Your task to perform on an android device: install app "The Home Depot" Image 0: 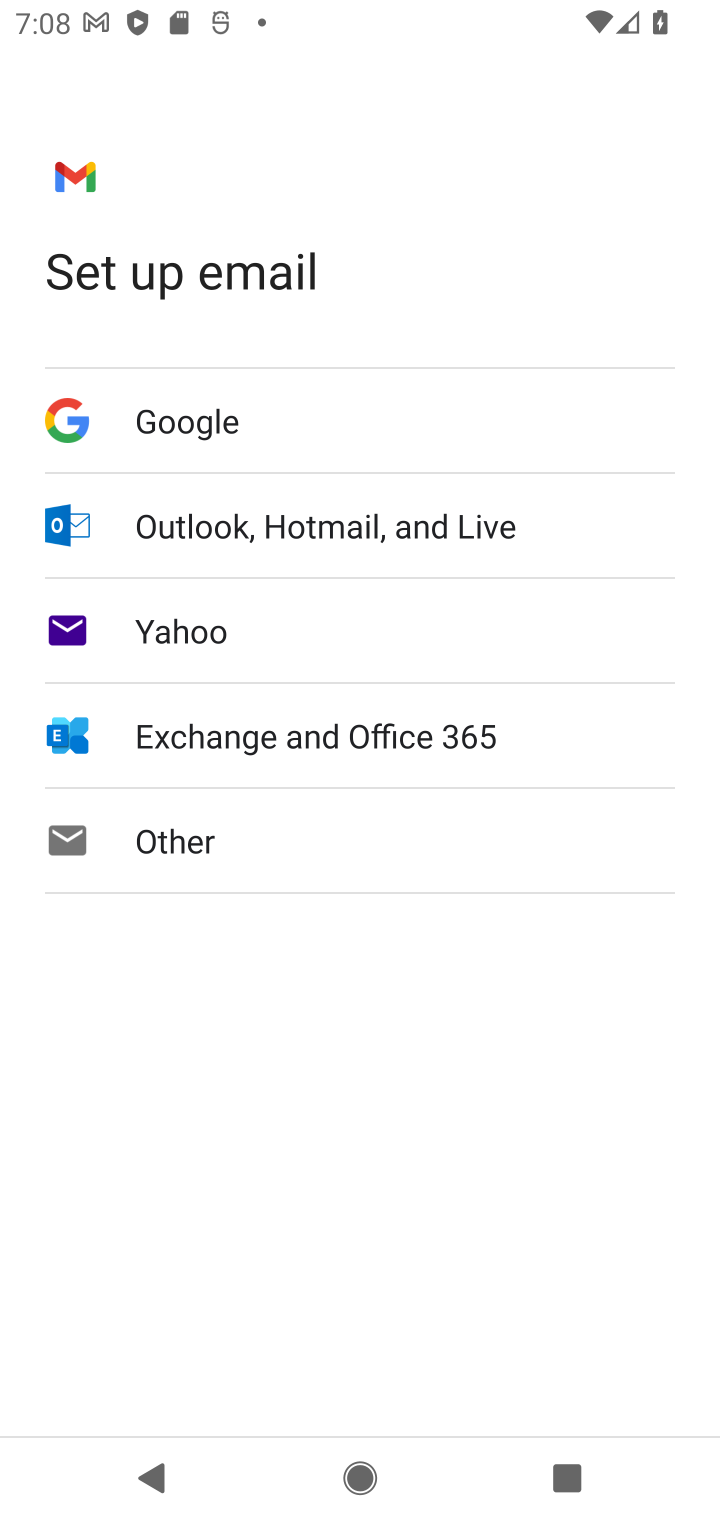
Step 0: press back button
Your task to perform on an android device: install app "The Home Depot" Image 1: 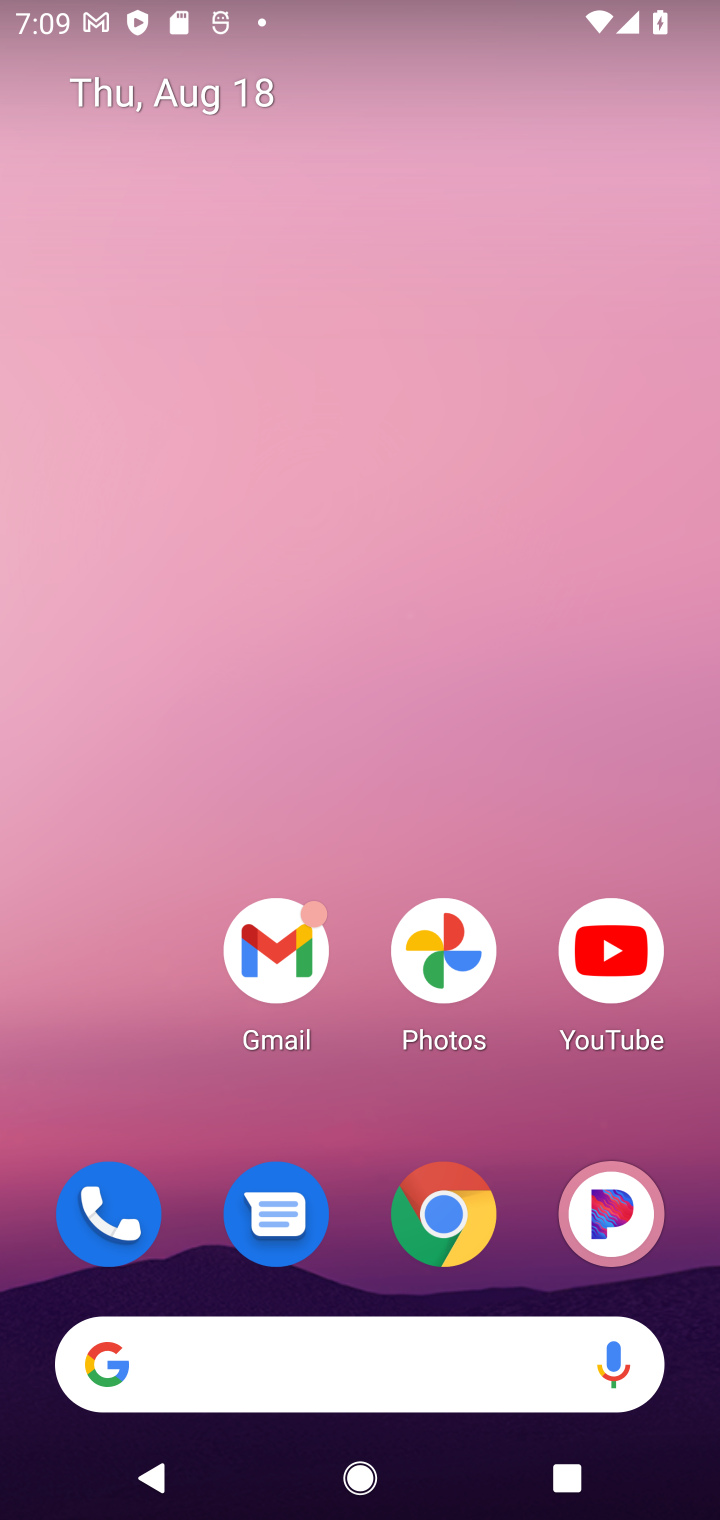
Step 1: drag from (149, 854) to (317, 31)
Your task to perform on an android device: install app "The Home Depot" Image 2: 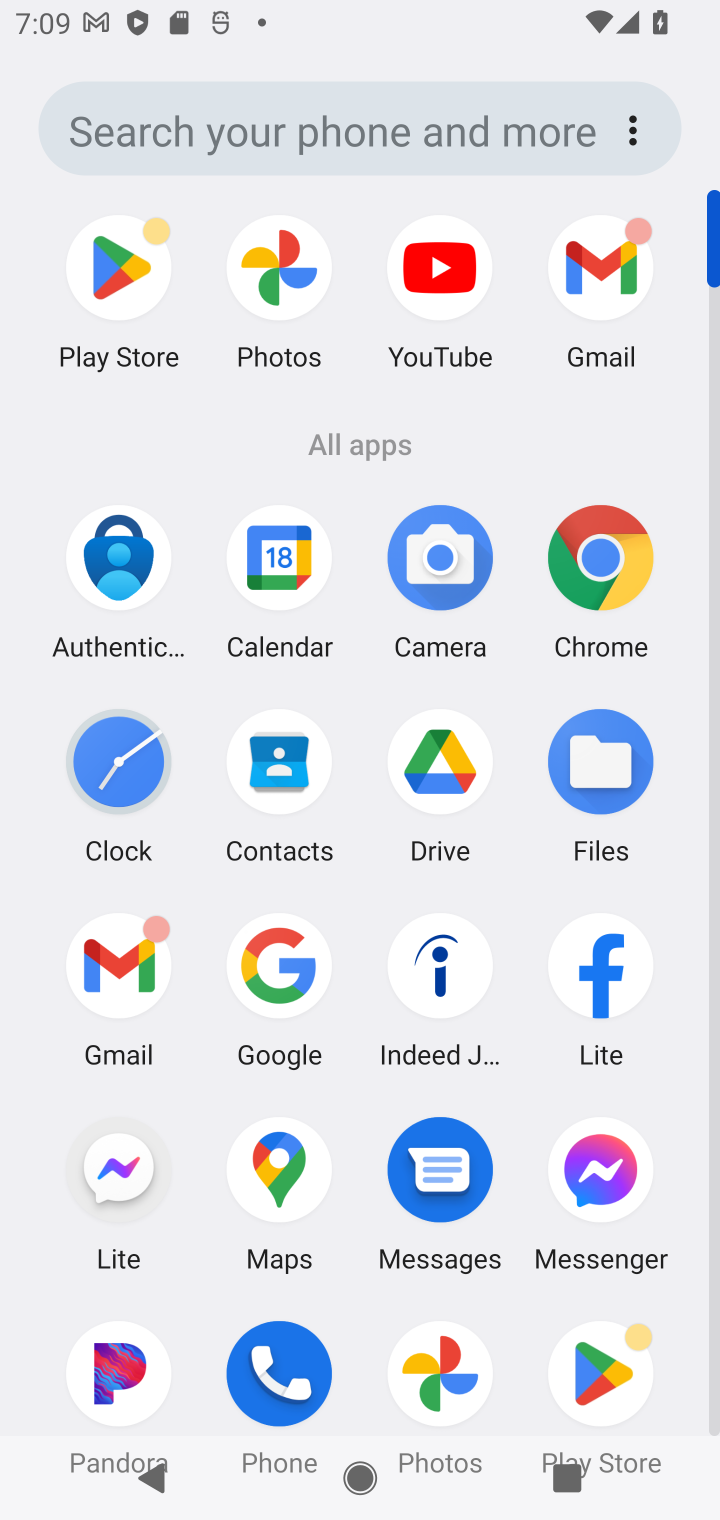
Step 2: click (107, 261)
Your task to perform on an android device: install app "The Home Depot" Image 3: 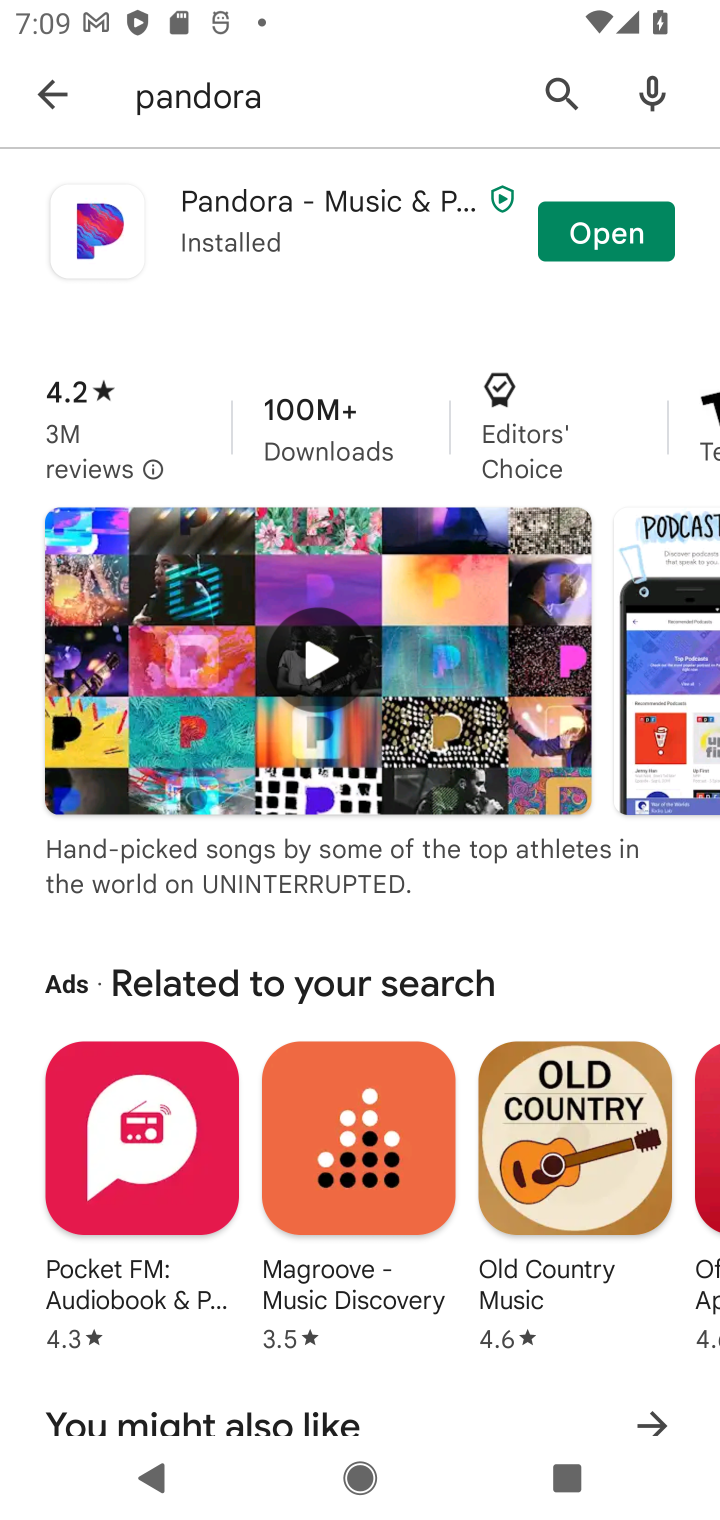
Step 3: click (565, 101)
Your task to perform on an android device: install app "The Home Depot" Image 4: 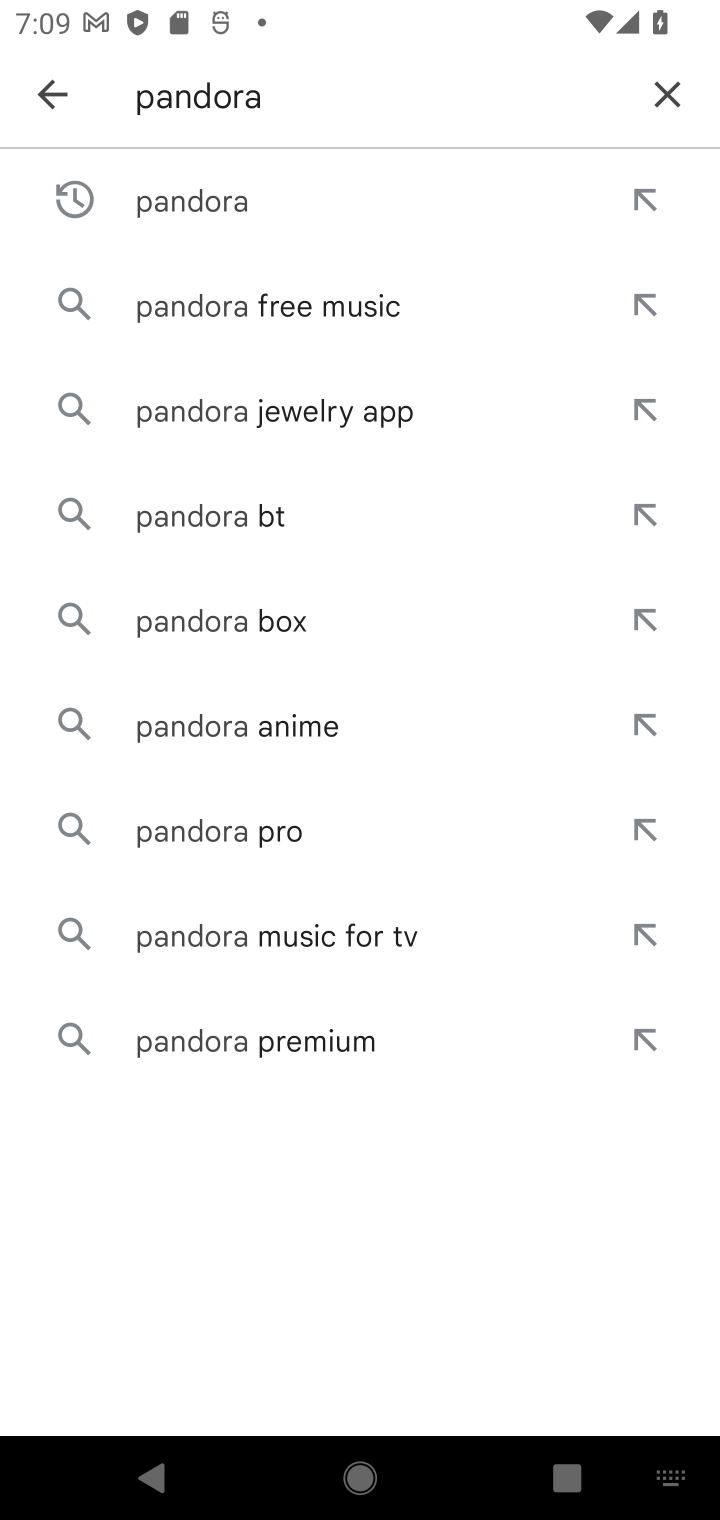
Step 4: click (671, 95)
Your task to perform on an android device: install app "The Home Depot" Image 5: 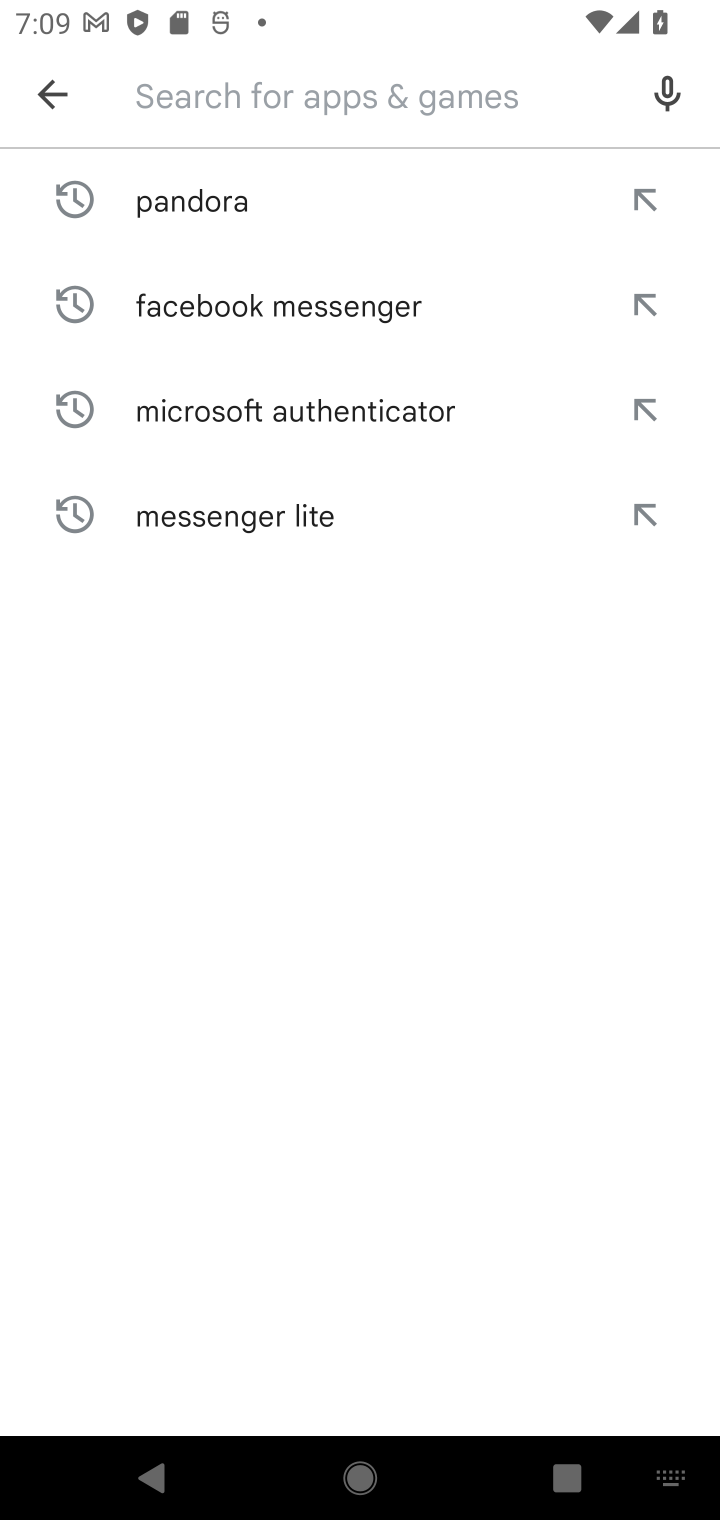
Step 5: click (320, 104)
Your task to perform on an android device: install app "The Home Depot" Image 6: 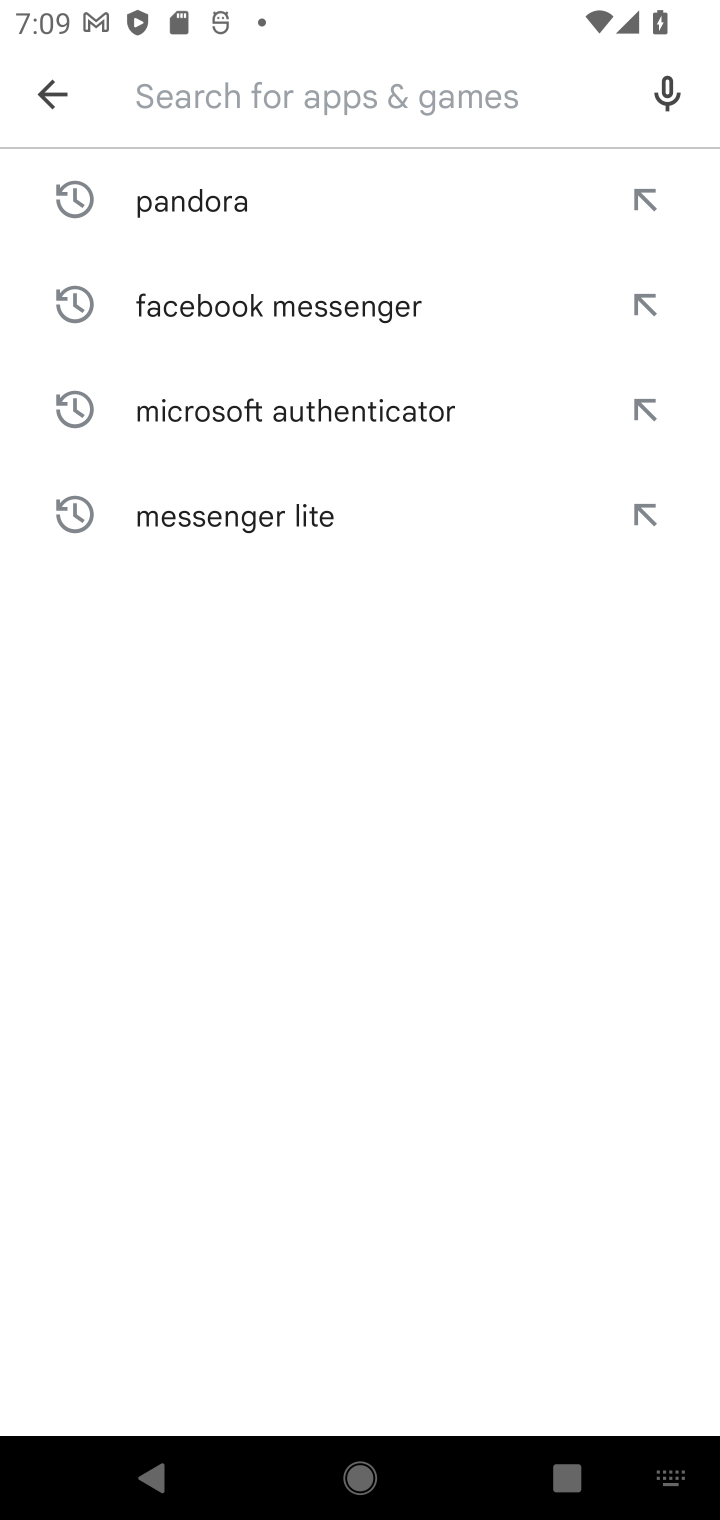
Step 6: type "the home depot"
Your task to perform on an android device: install app "The Home Depot" Image 7: 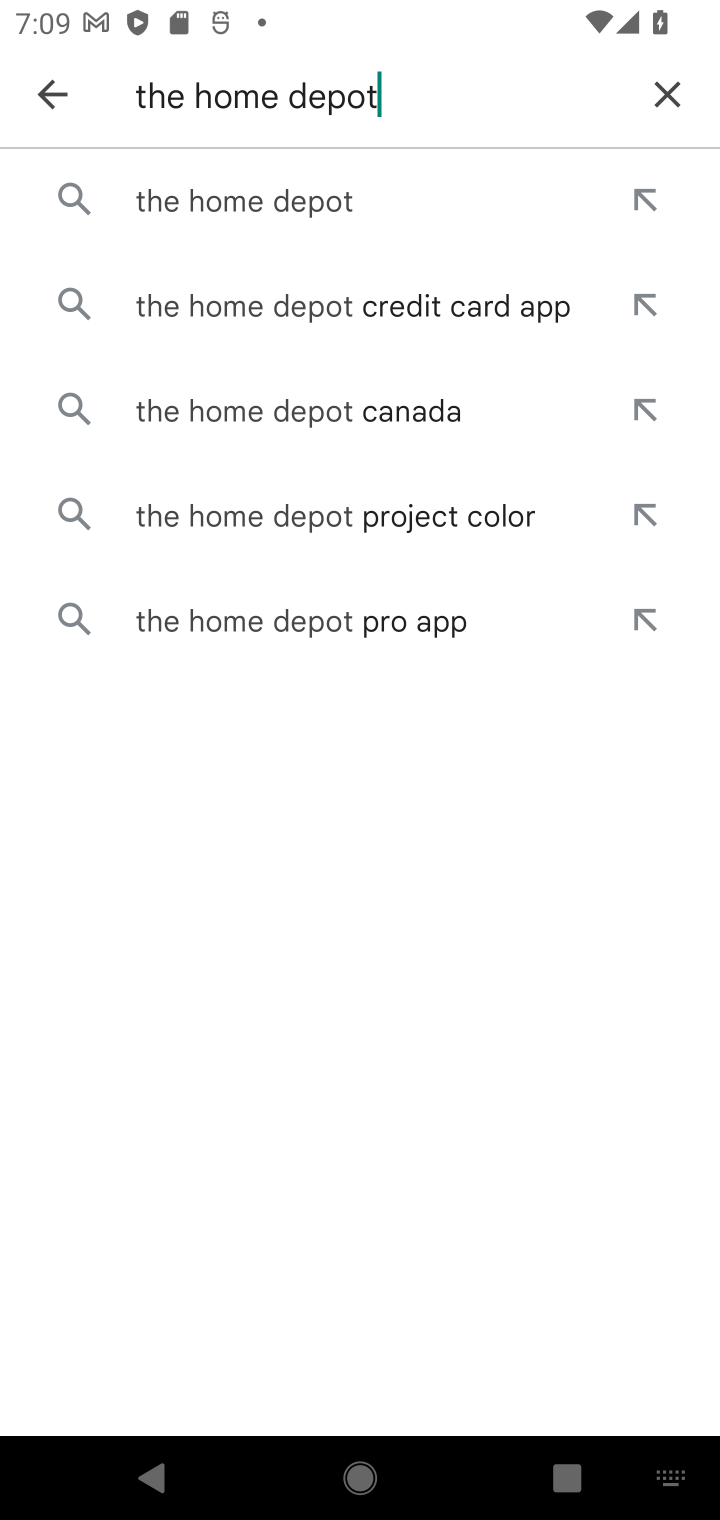
Step 7: click (375, 202)
Your task to perform on an android device: install app "The Home Depot" Image 8: 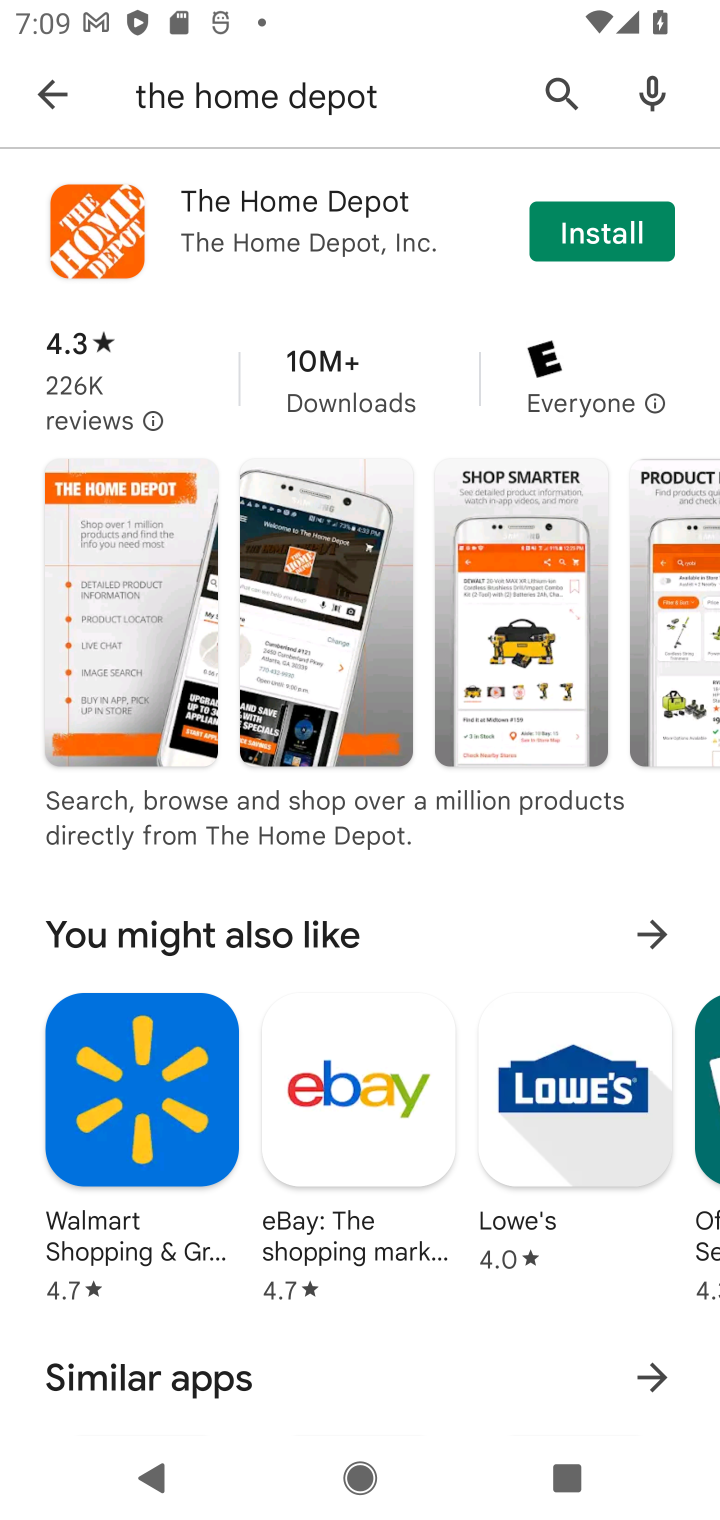
Step 8: click (584, 235)
Your task to perform on an android device: install app "The Home Depot" Image 9: 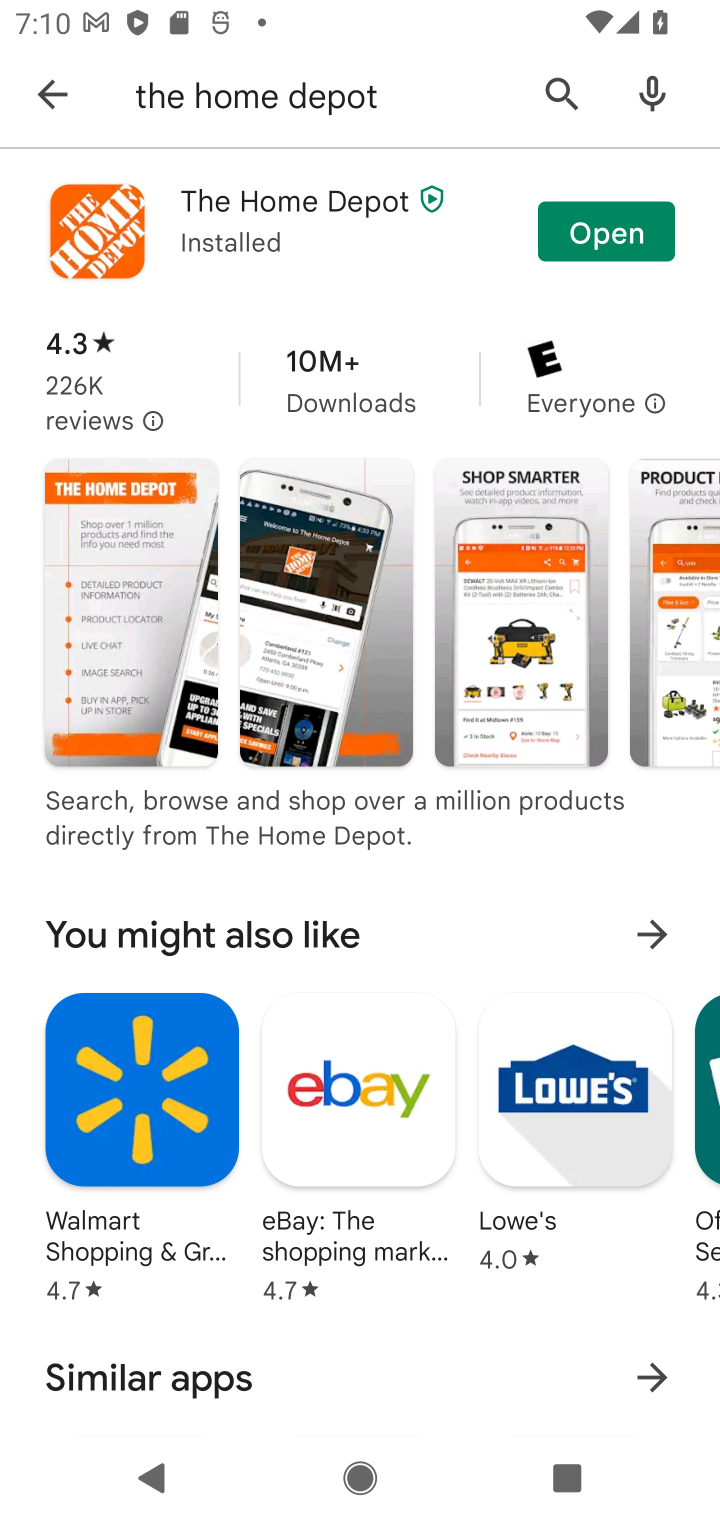
Step 9: task complete